Your task to perform on an android device: Open ESPN.com Image 0: 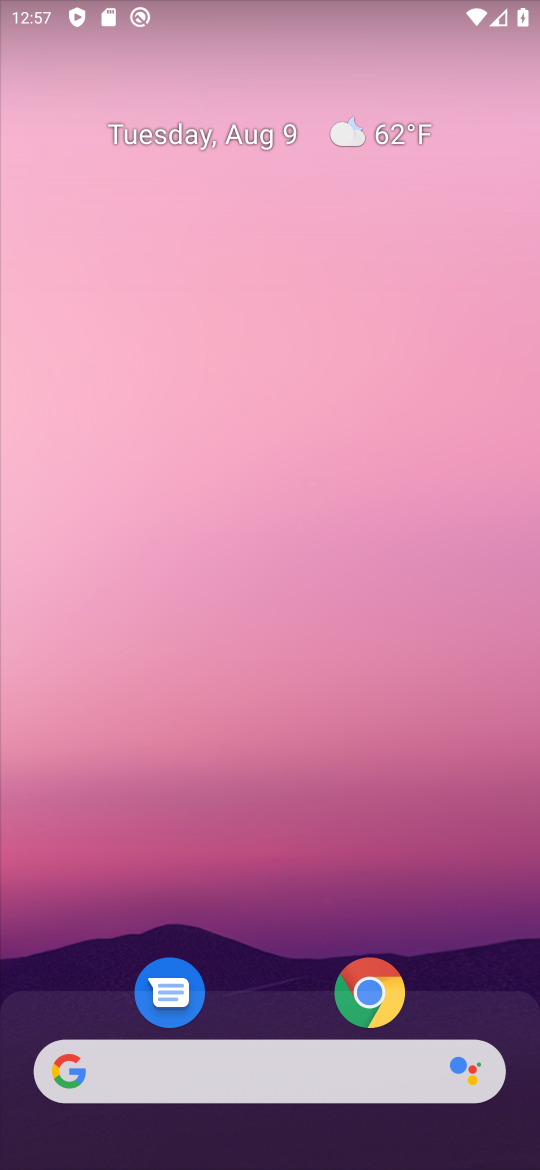
Step 0: drag from (248, 897) to (345, 305)
Your task to perform on an android device: Open ESPN.com Image 1: 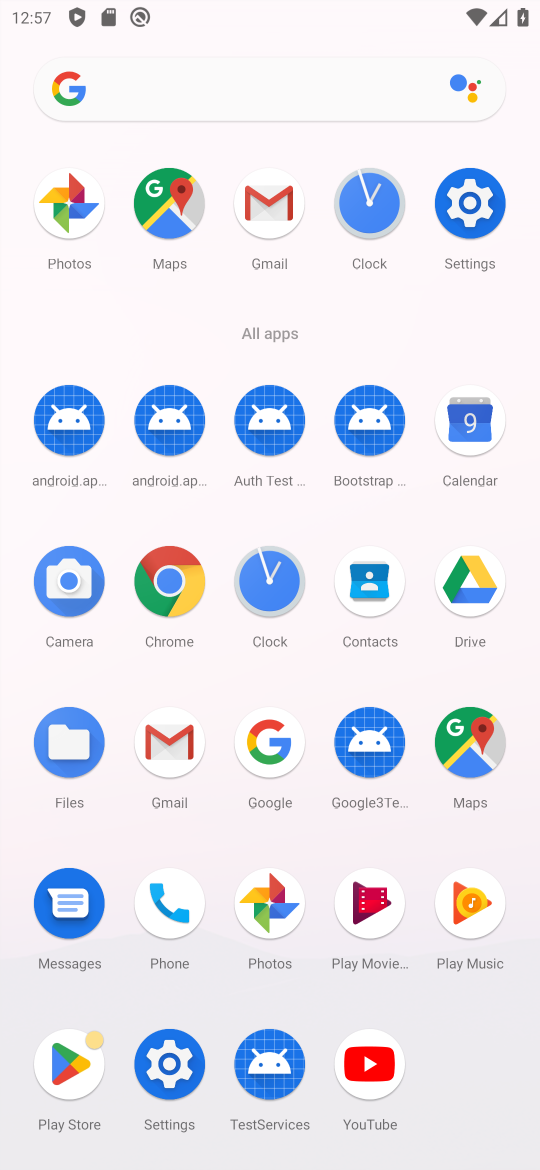
Step 1: click (171, 610)
Your task to perform on an android device: Open ESPN.com Image 2: 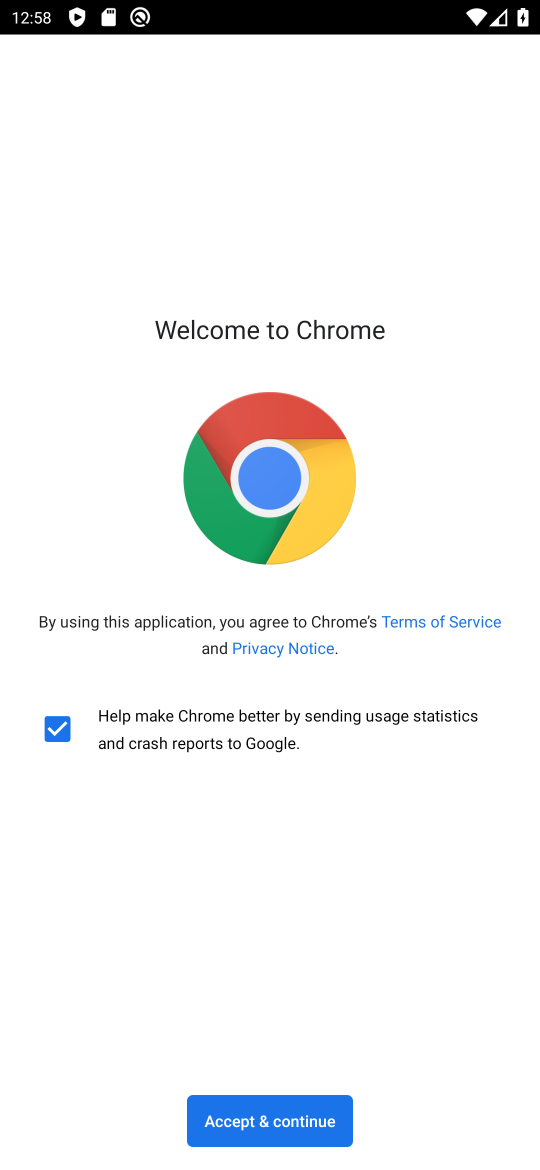
Step 2: click (267, 1126)
Your task to perform on an android device: Open ESPN.com Image 3: 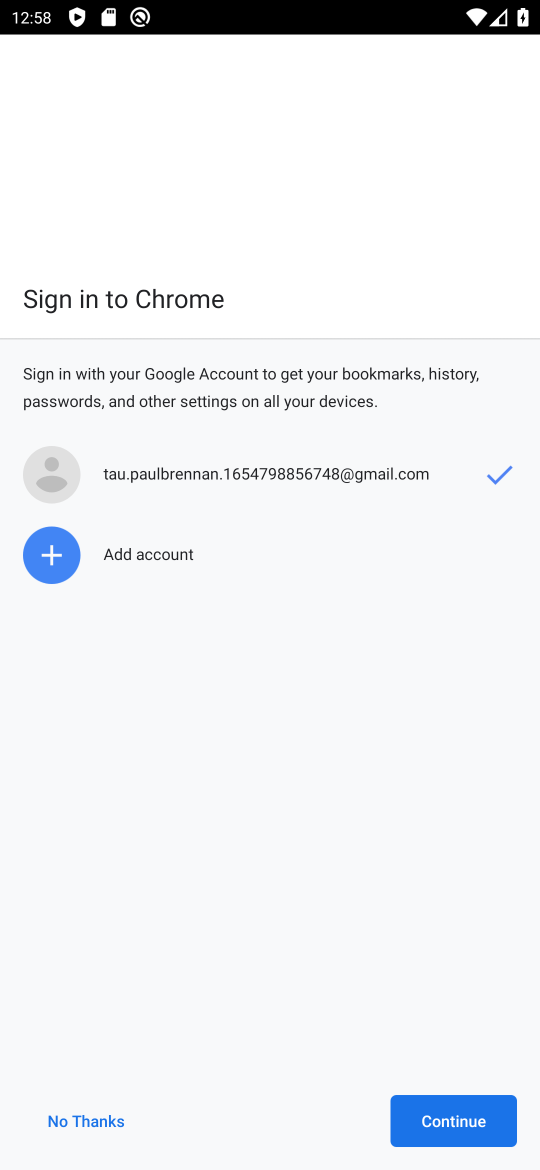
Step 3: click (460, 1137)
Your task to perform on an android device: Open ESPN.com Image 4: 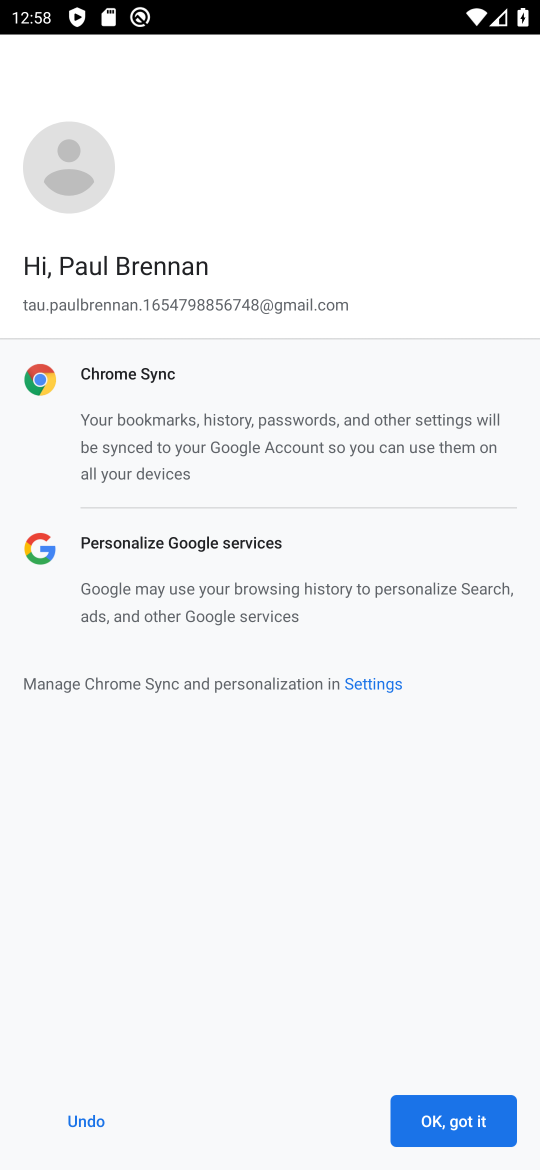
Step 4: click (466, 1119)
Your task to perform on an android device: Open ESPN.com Image 5: 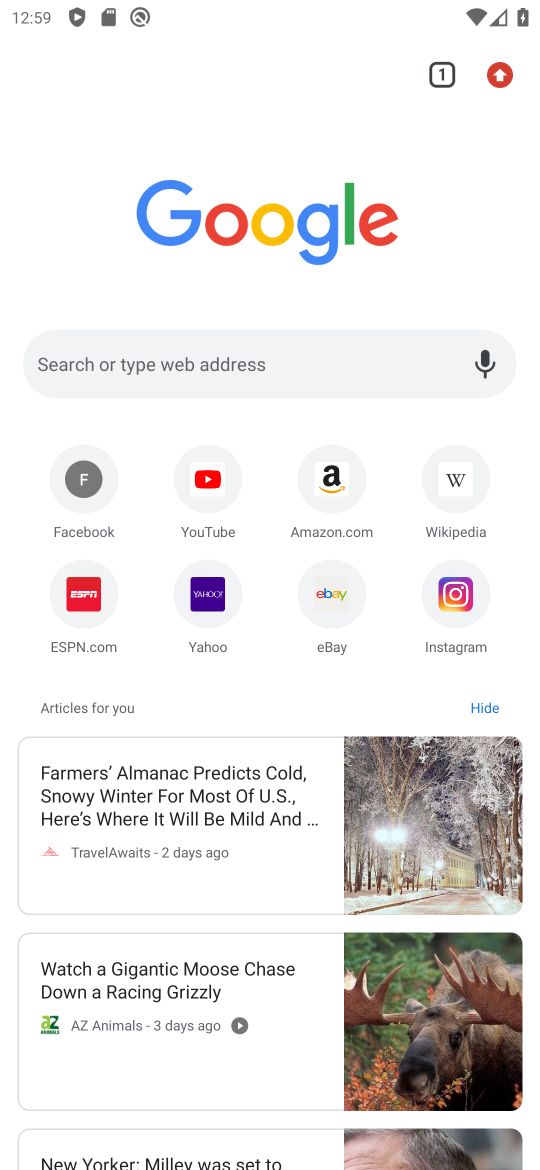
Step 5: click (91, 620)
Your task to perform on an android device: Open ESPN.com Image 6: 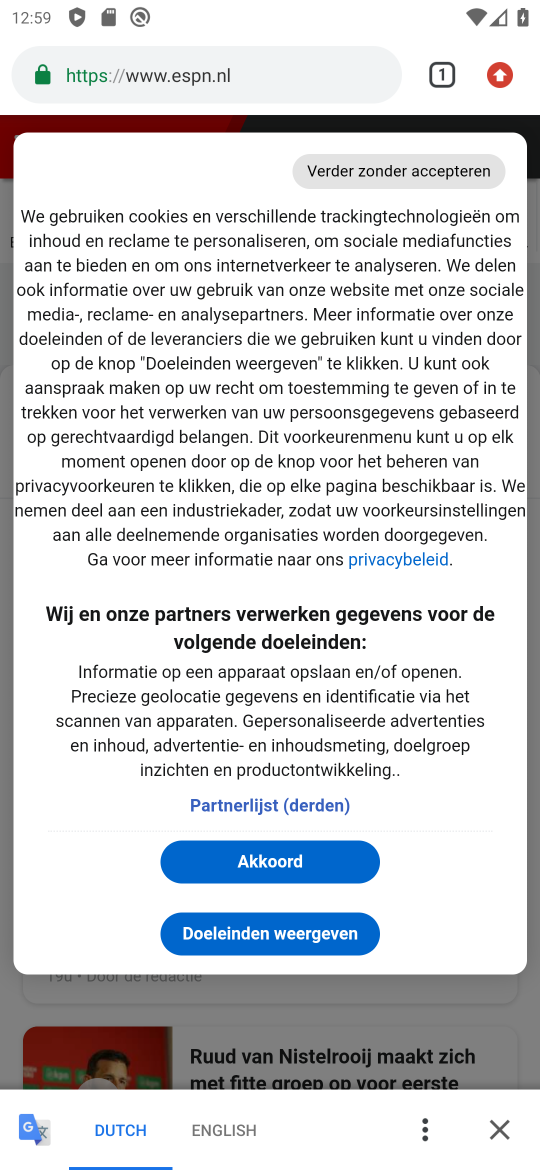
Step 6: task complete